Your task to perform on an android device: Open the map Image 0: 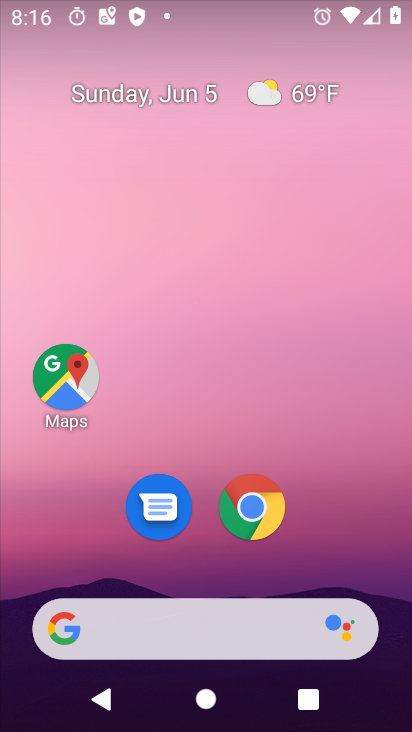
Step 0: drag from (401, 611) to (282, 9)
Your task to perform on an android device: Open the map Image 1: 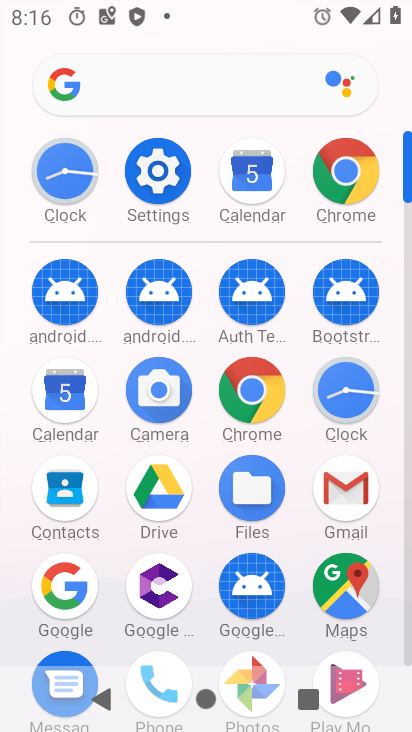
Step 1: click (343, 174)
Your task to perform on an android device: Open the map Image 2: 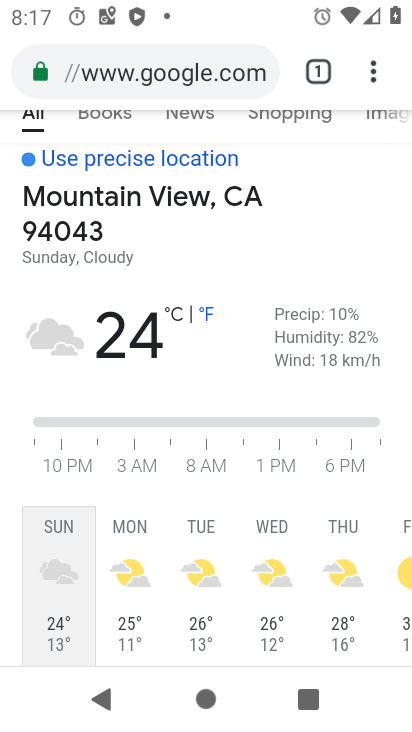
Step 2: task complete